Your task to perform on an android device: Open the phone app and click the voicemail tab. Image 0: 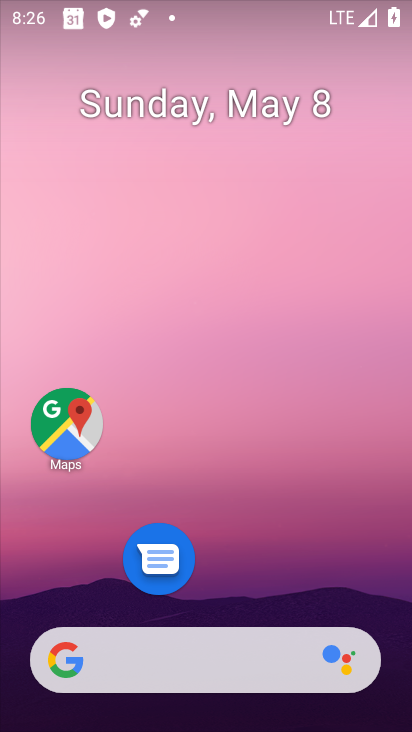
Step 0: drag from (235, 648) to (217, 39)
Your task to perform on an android device: Open the phone app and click the voicemail tab. Image 1: 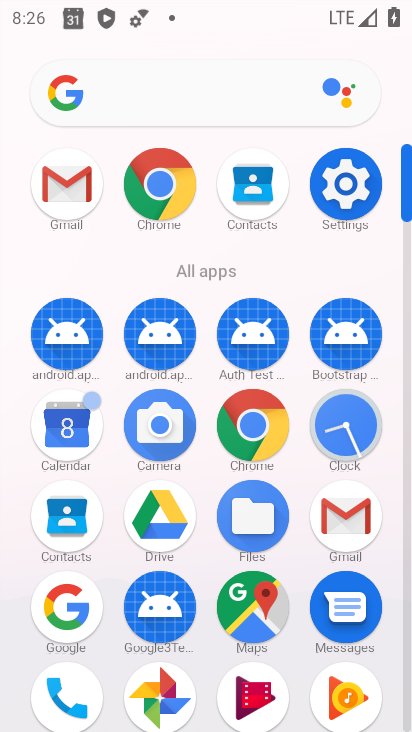
Step 1: click (71, 682)
Your task to perform on an android device: Open the phone app and click the voicemail tab. Image 2: 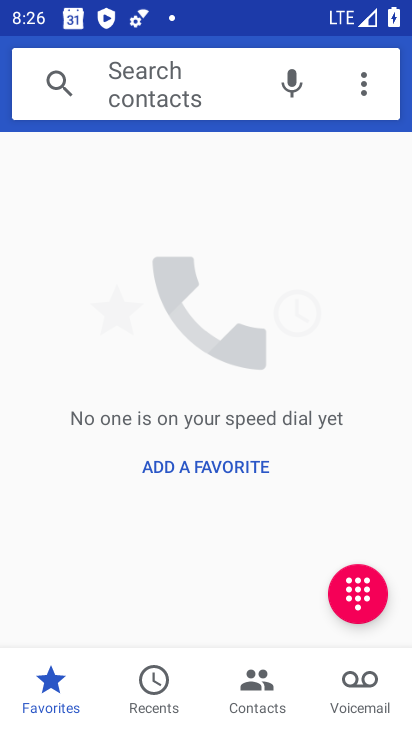
Step 2: click (360, 683)
Your task to perform on an android device: Open the phone app and click the voicemail tab. Image 3: 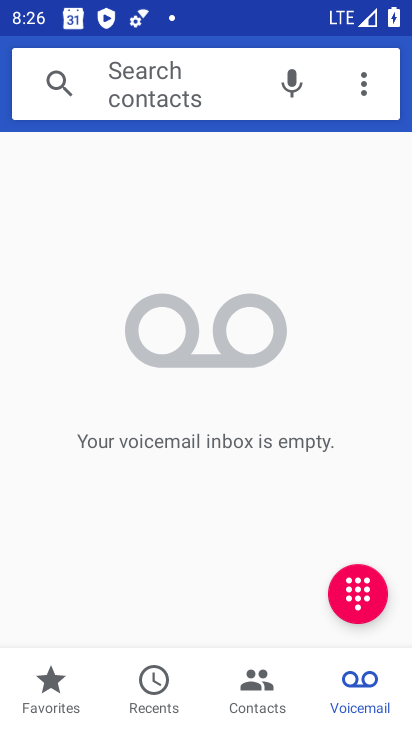
Step 3: task complete